Your task to perform on an android device: set the timer Image 0: 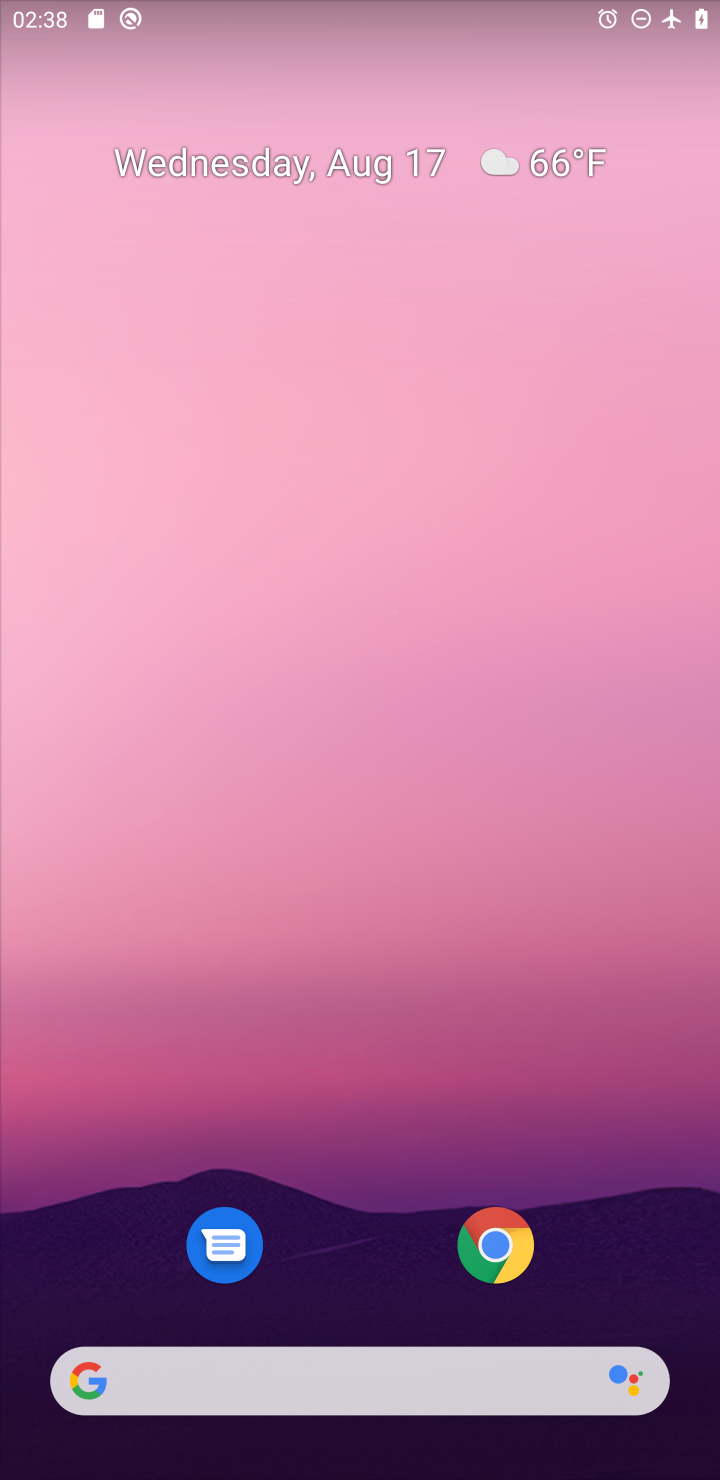
Step 0: drag from (319, 873) to (302, 356)
Your task to perform on an android device: set the timer Image 1: 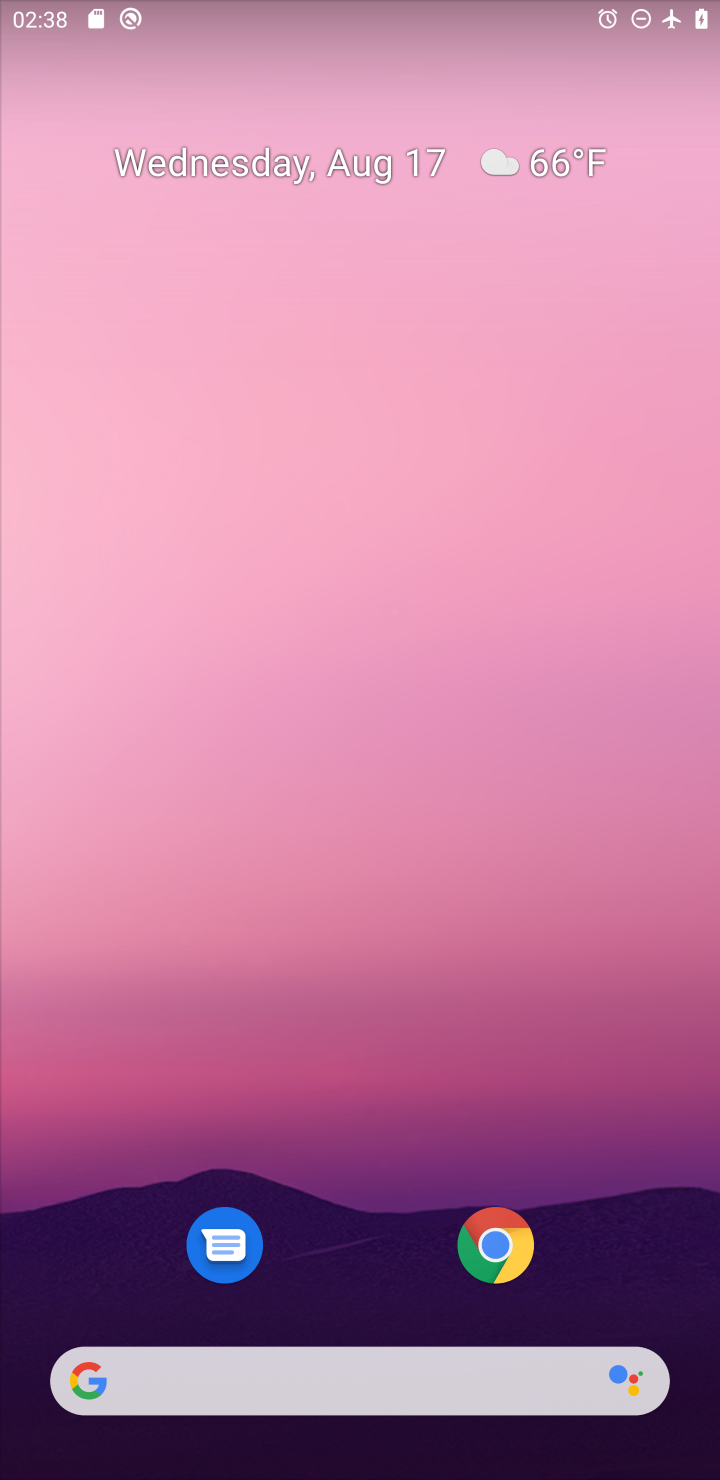
Step 1: drag from (364, 1179) to (270, 210)
Your task to perform on an android device: set the timer Image 2: 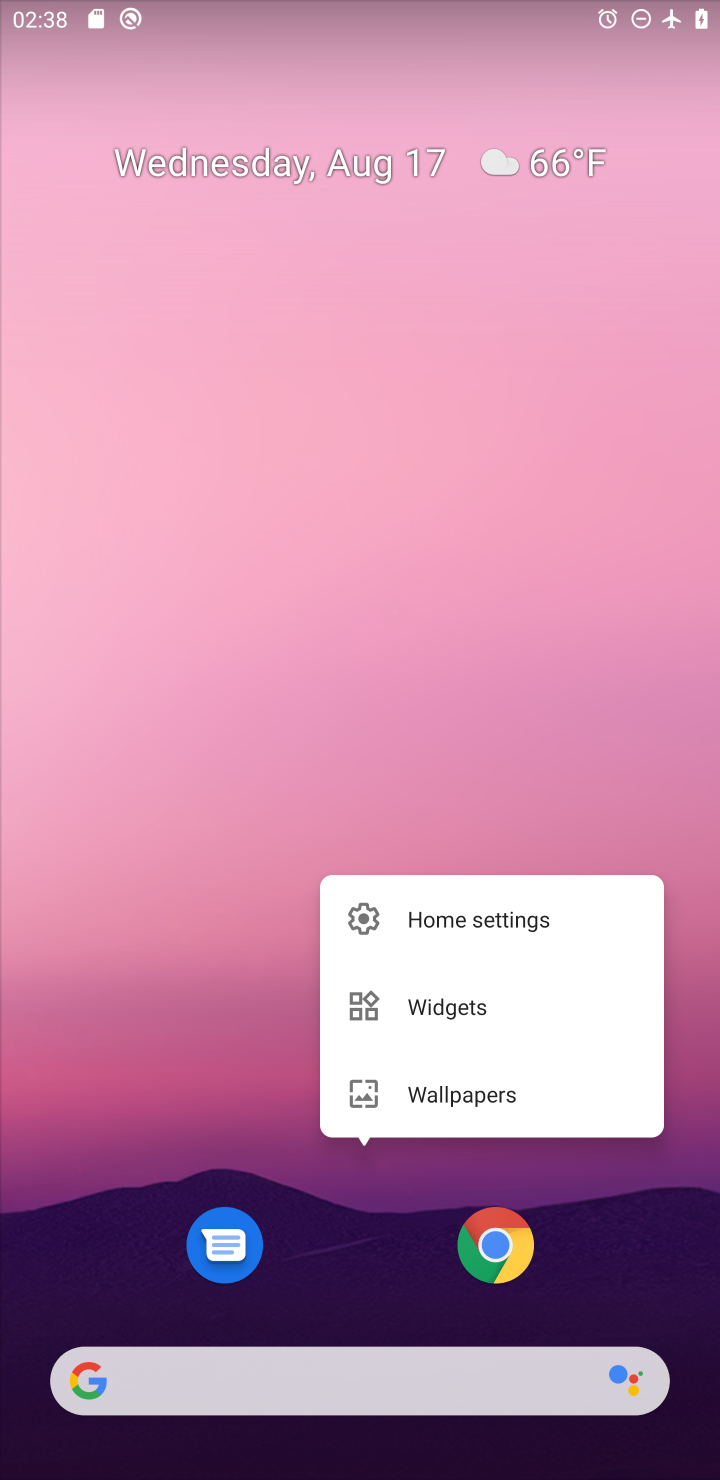
Step 2: click (416, 609)
Your task to perform on an android device: set the timer Image 3: 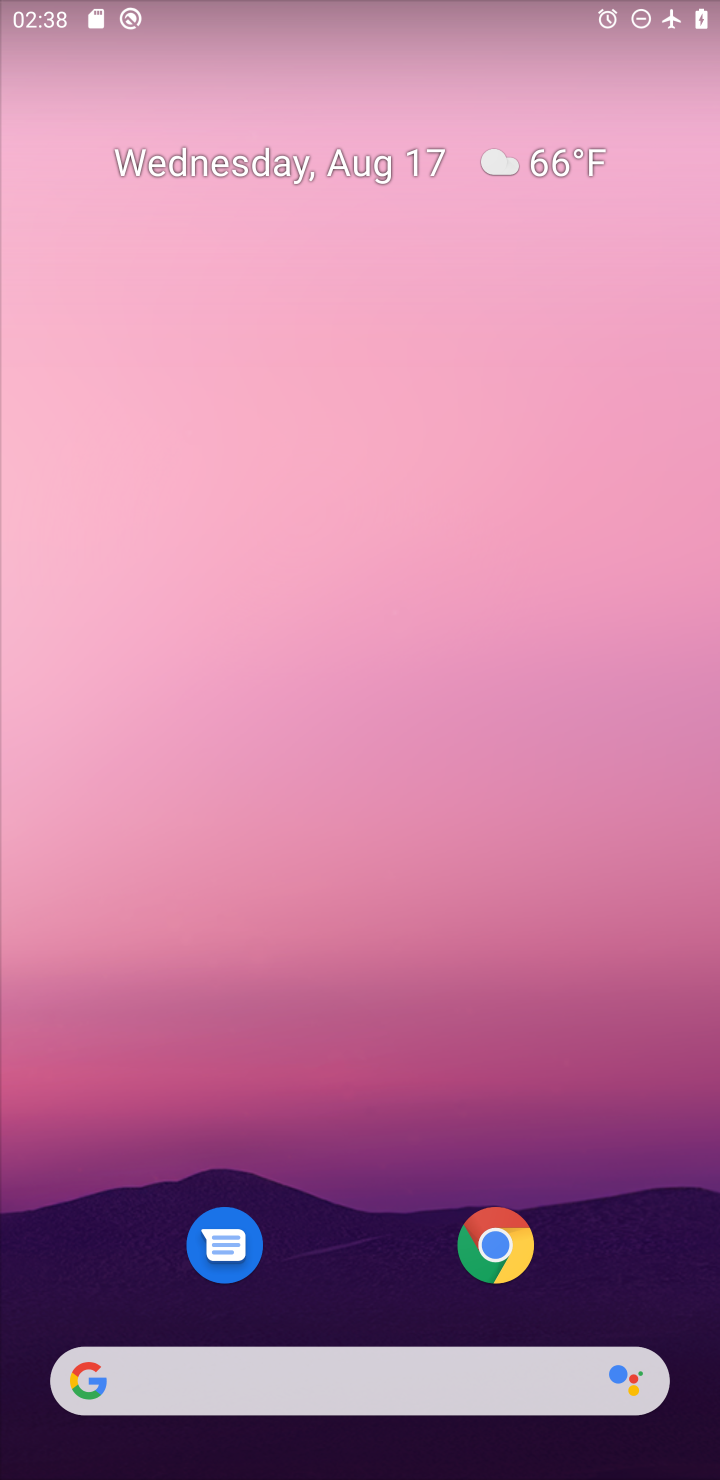
Step 3: drag from (370, 1232) to (306, 169)
Your task to perform on an android device: set the timer Image 4: 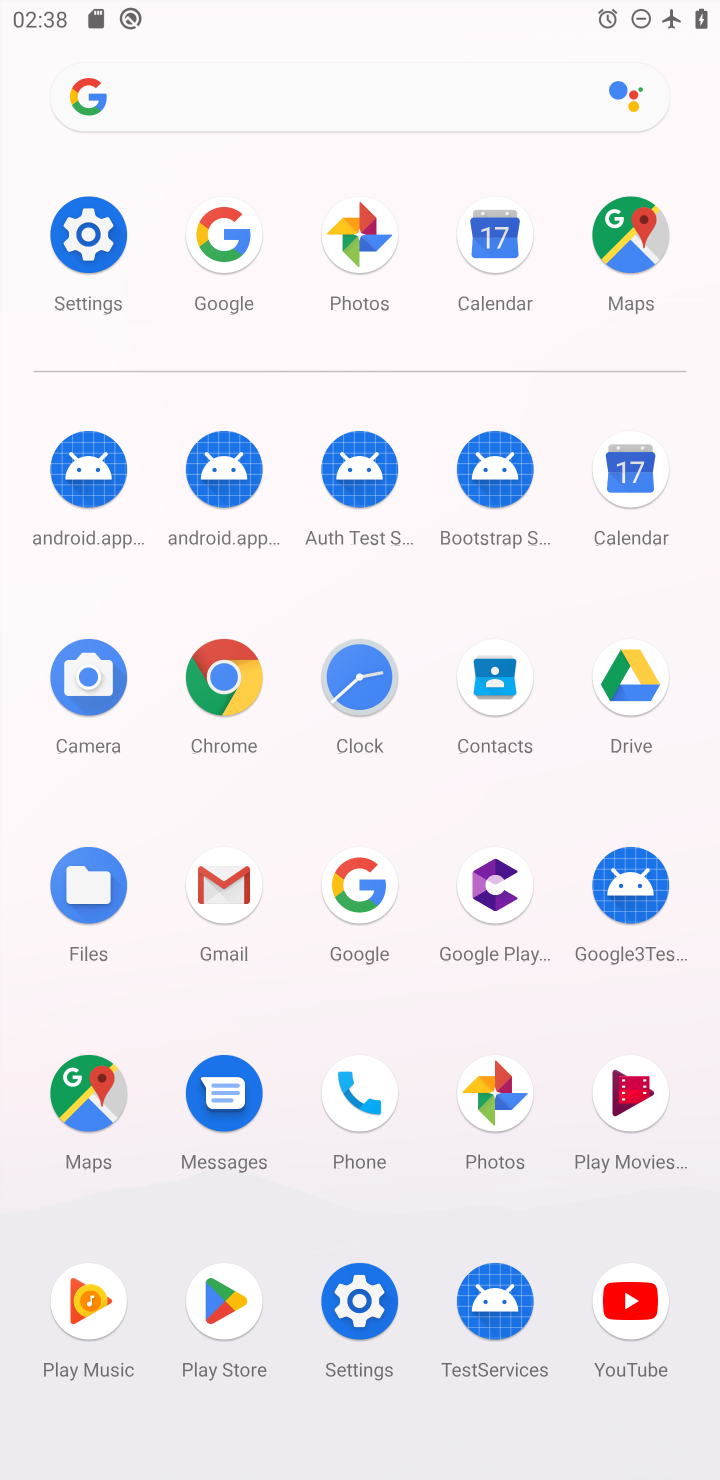
Step 4: click (350, 671)
Your task to perform on an android device: set the timer Image 5: 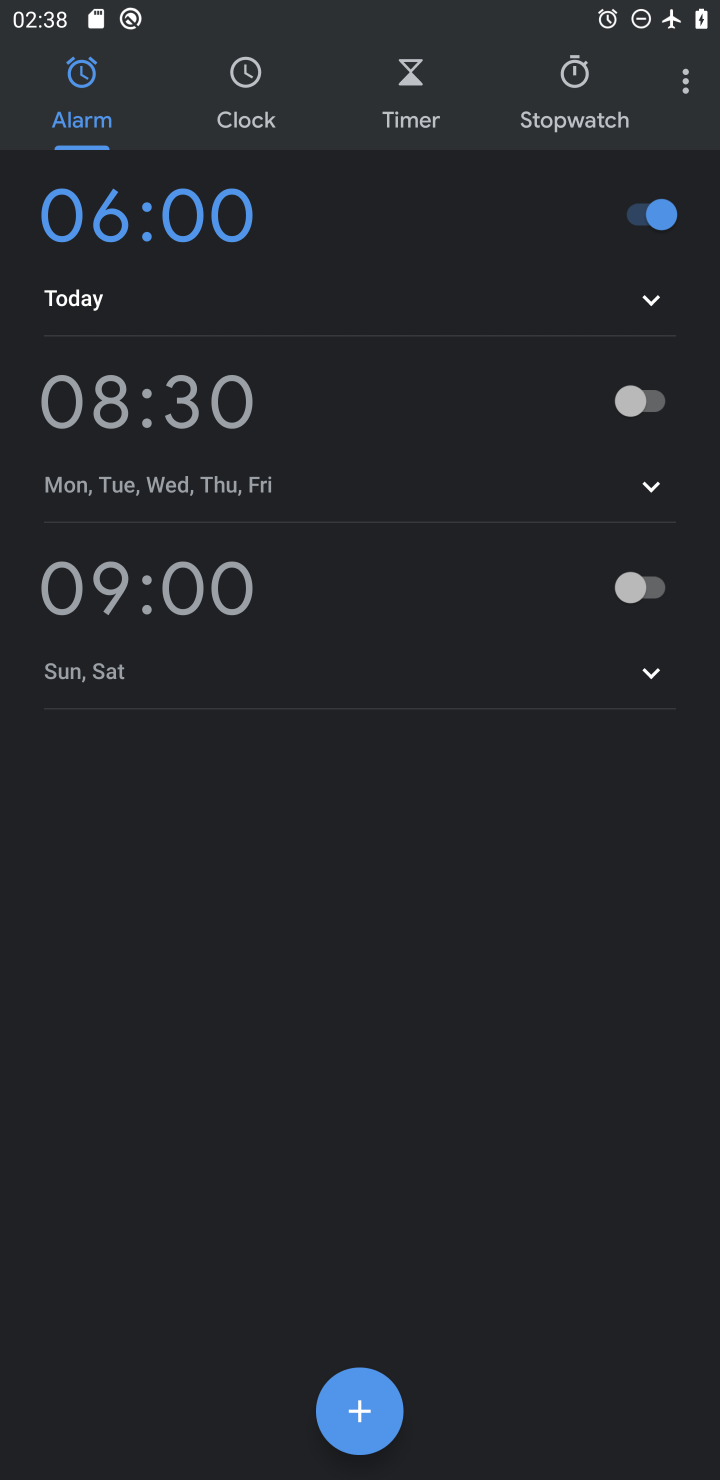
Step 5: click (406, 105)
Your task to perform on an android device: set the timer Image 6: 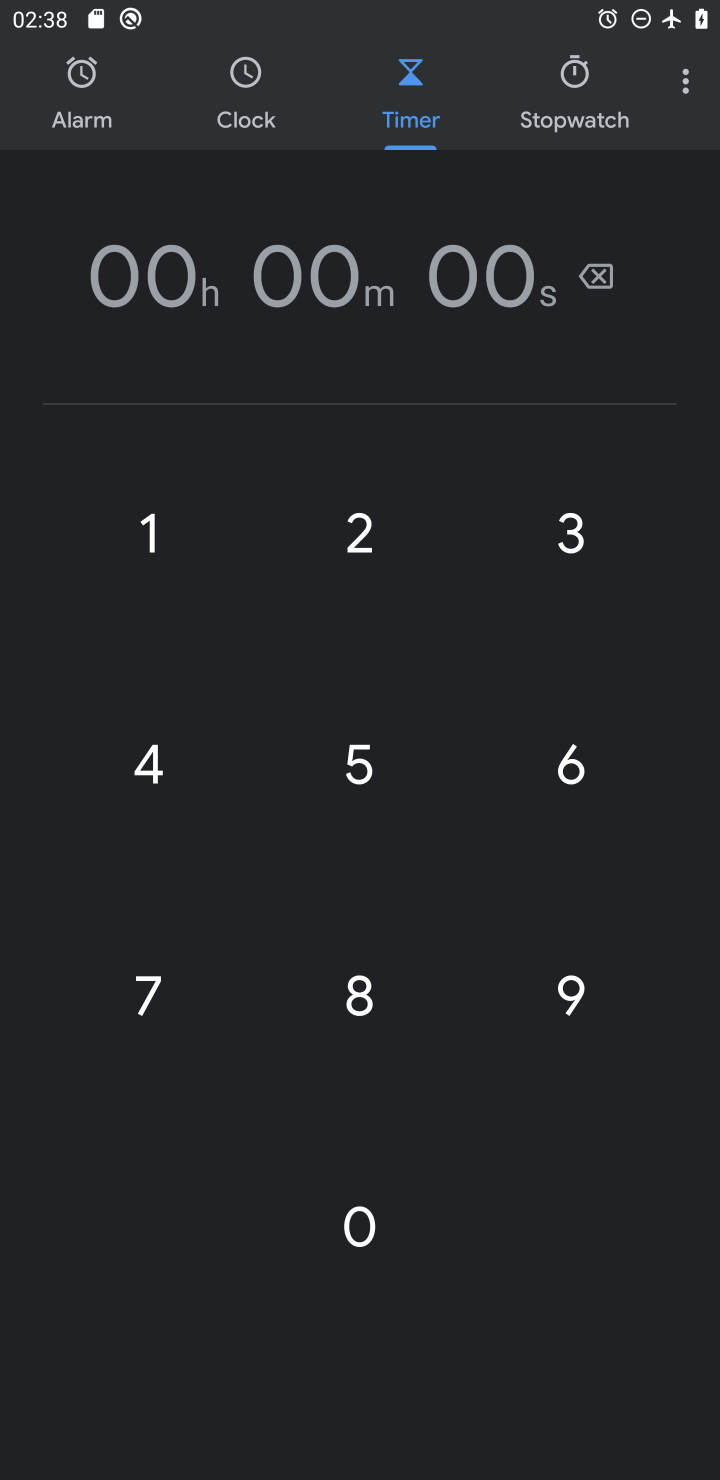
Step 6: click (364, 762)
Your task to perform on an android device: set the timer Image 7: 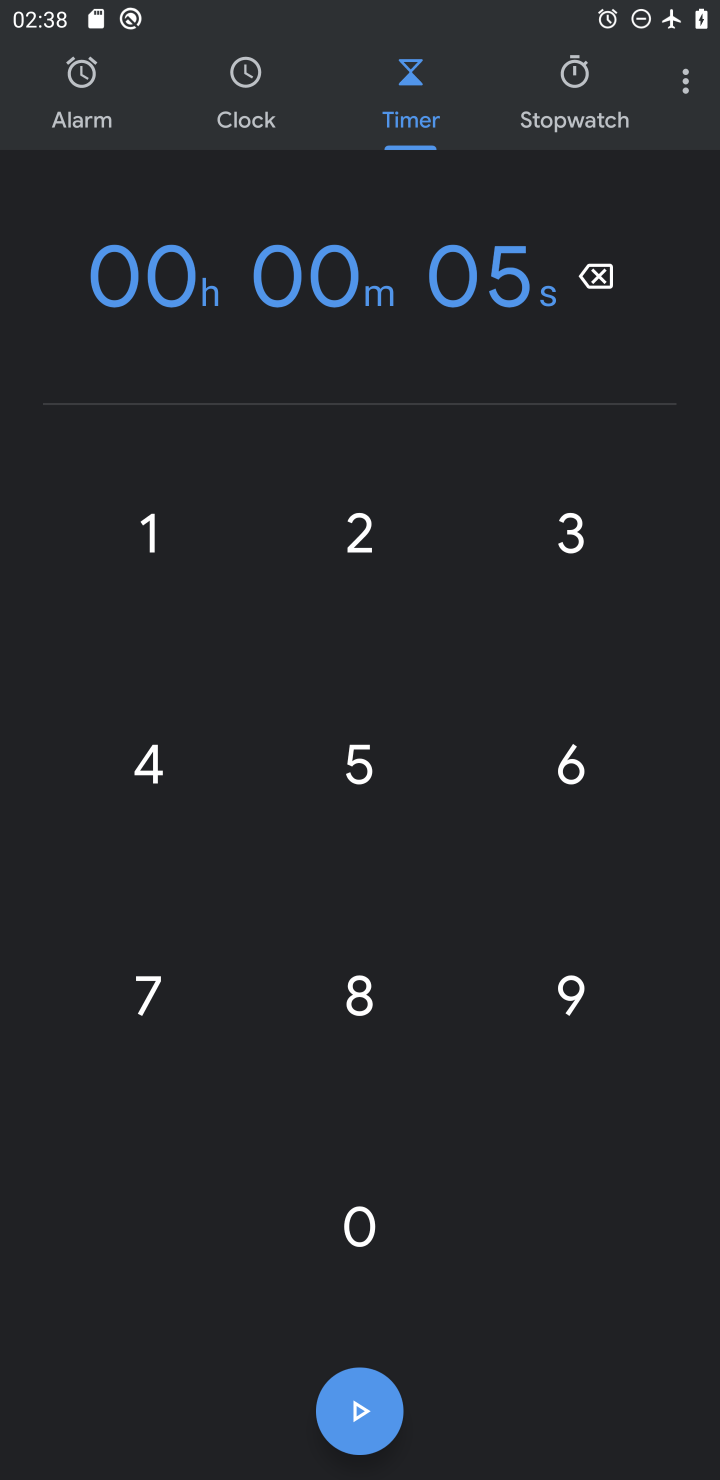
Step 7: click (364, 979)
Your task to perform on an android device: set the timer Image 8: 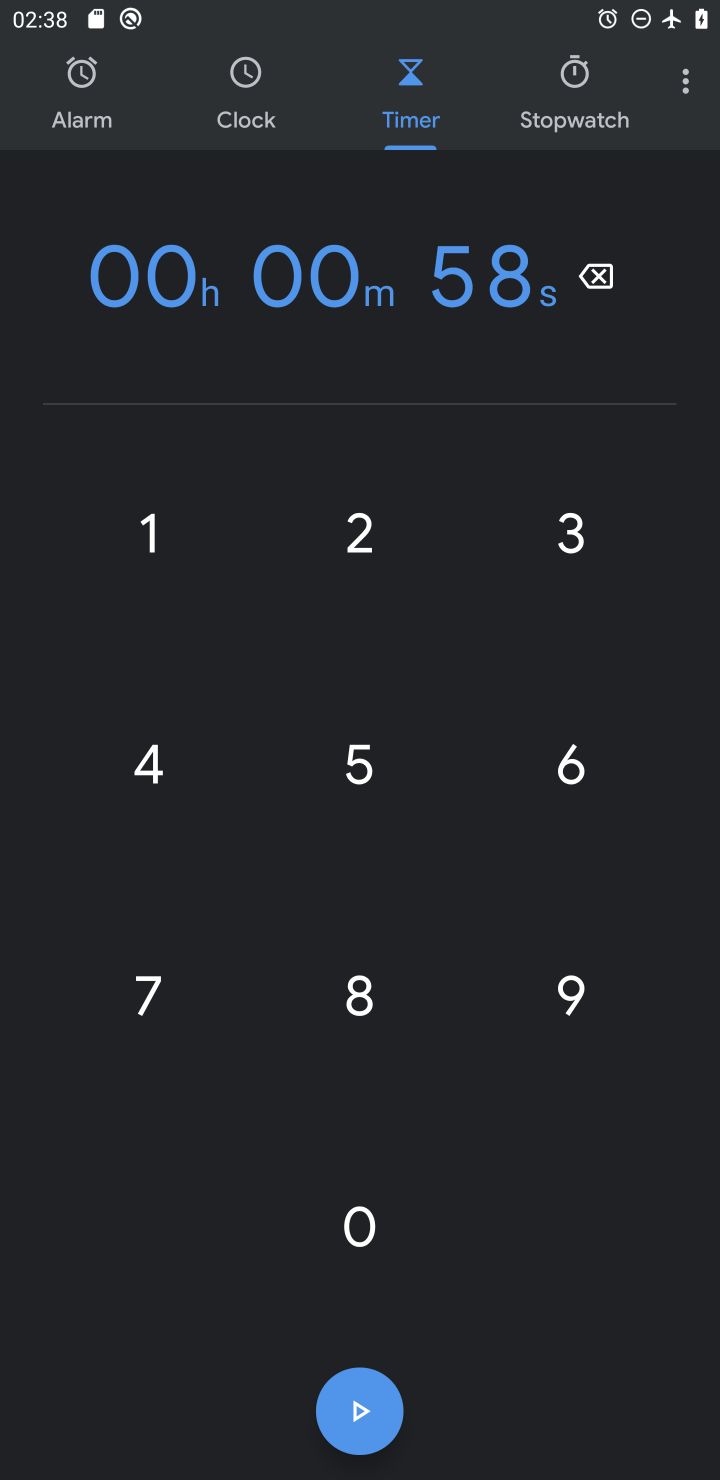
Step 8: click (158, 977)
Your task to perform on an android device: set the timer Image 9: 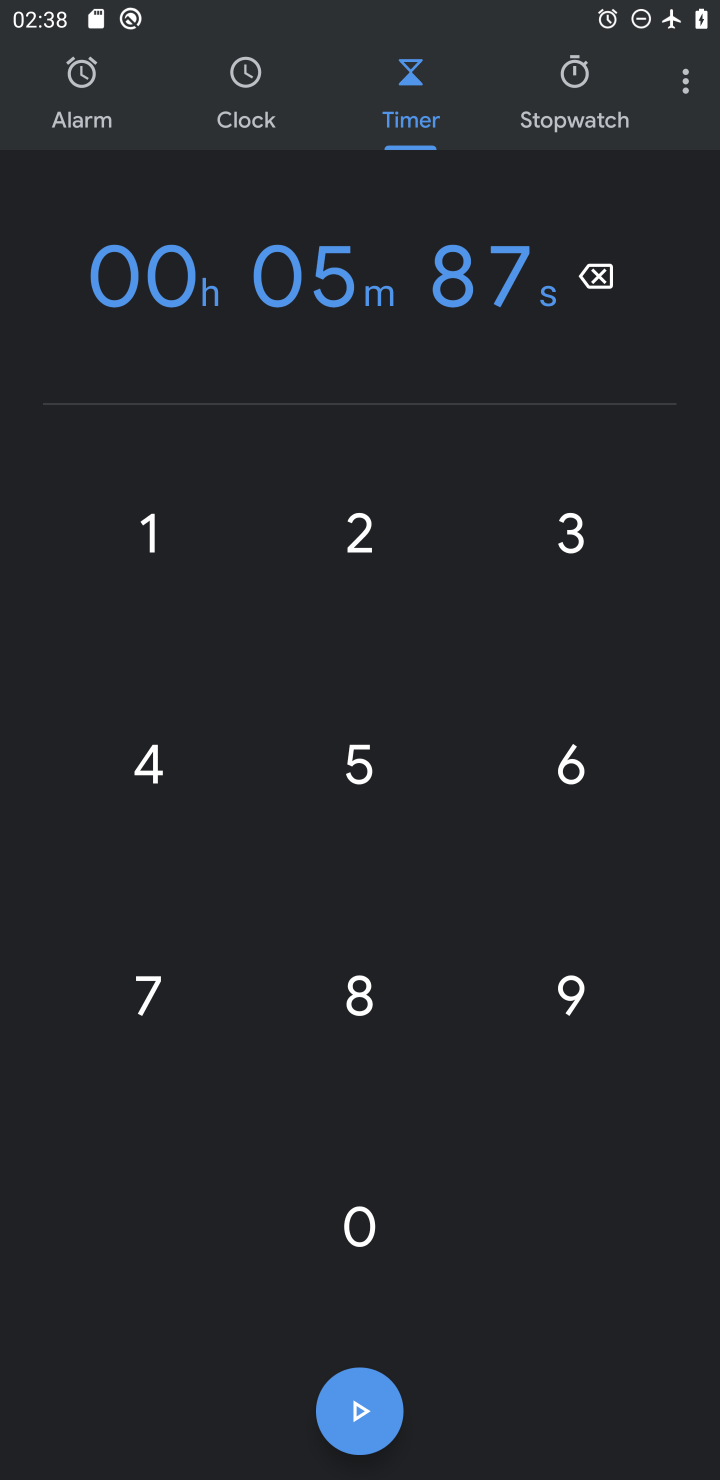
Step 9: click (365, 1428)
Your task to perform on an android device: set the timer Image 10: 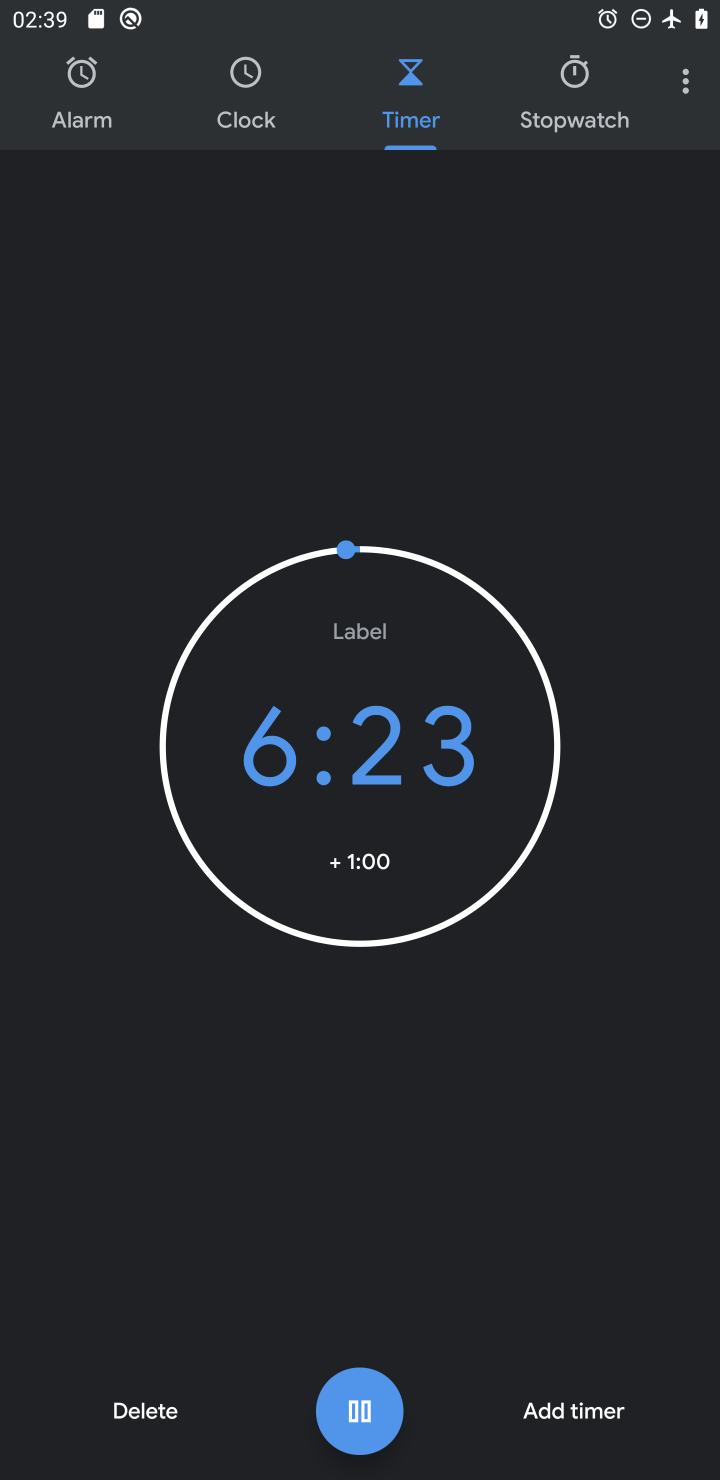
Step 10: task complete